Your task to perform on an android device: turn off picture-in-picture Image 0: 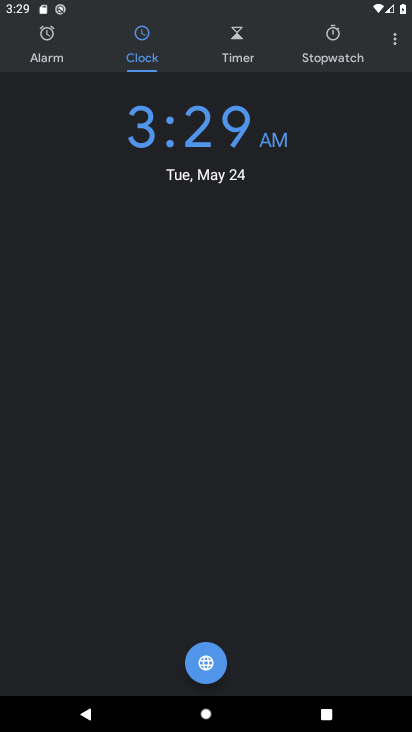
Step 0: press home button
Your task to perform on an android device: turn off picture-in-picture Image 1: 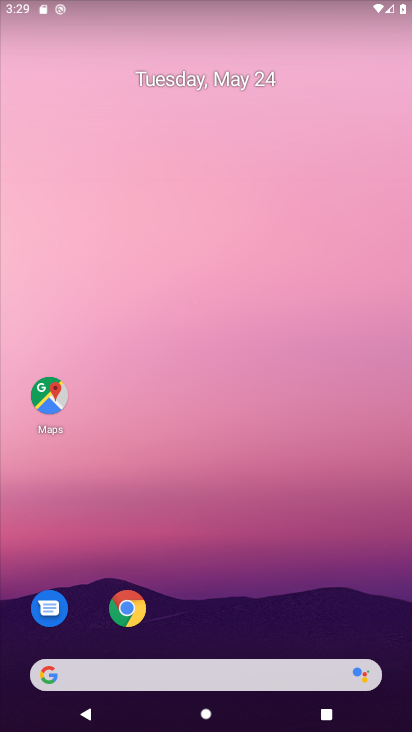
Step 1: drag from (172, 611) to (213, 355)
Your task to perform on an android device: turn off picture-in-picture Image 2: 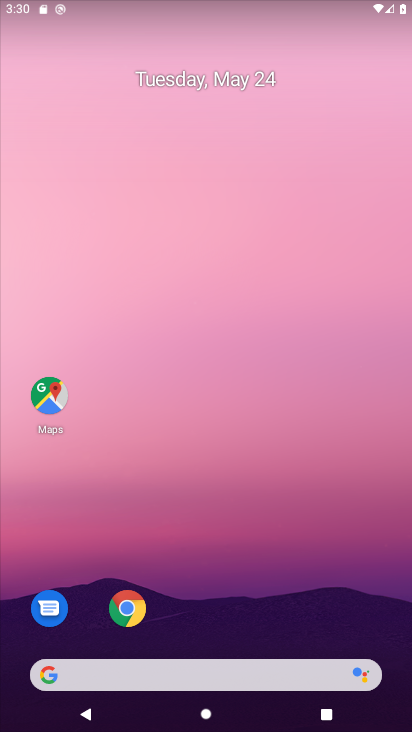
Step 2: drag from (203, 653) to (360, 130)
Your task to perform on an android device: turn off picture-in-picture Image 3: 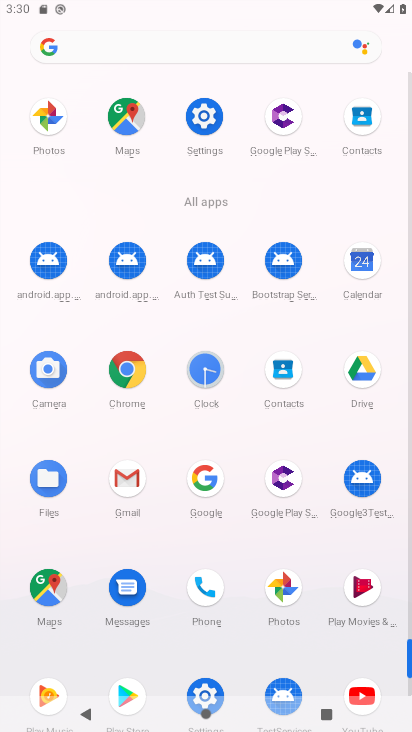
Step 3: click (204, 695)
Your task to perform on an android device: turn off picture-in-picture Image 4: 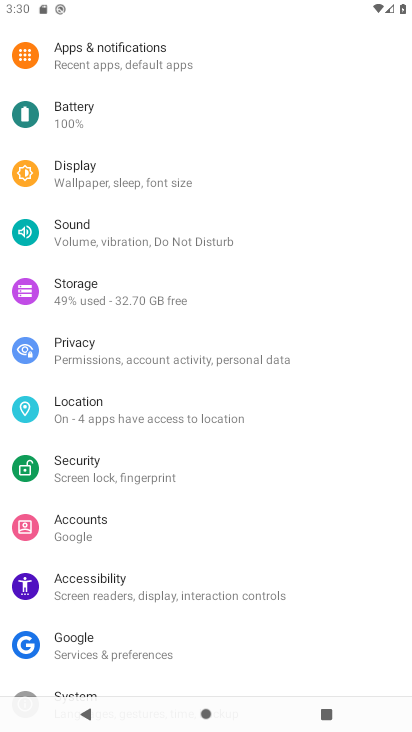
Step 4: click (160, 53)
Your task to perform on an android device: turn off picture-in-picture Image 5: 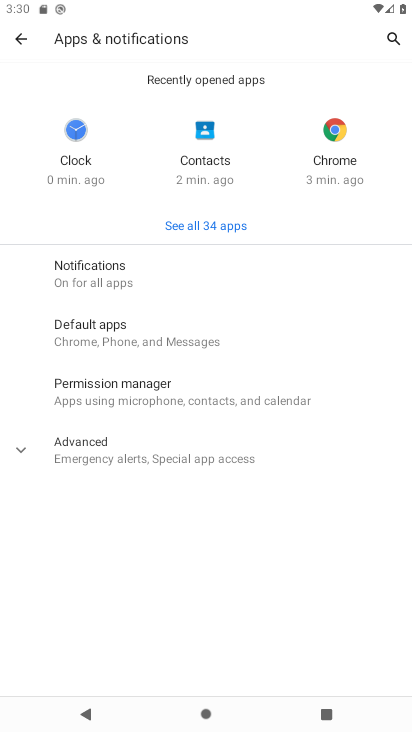
Step 5: click (129, 461)
Your task to perform on an android device: turn off picture-in-picture Image 6: 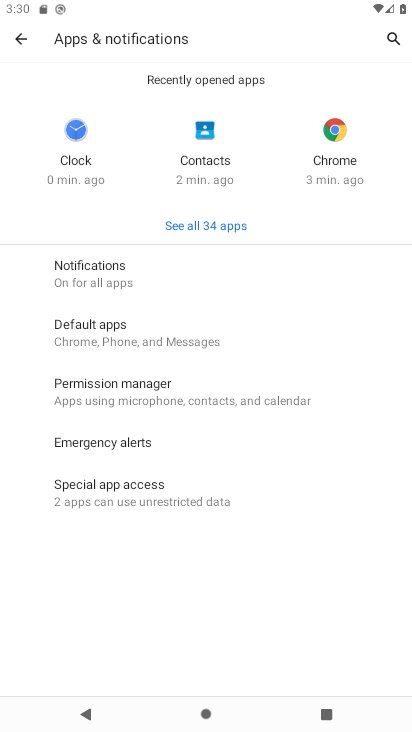
Step 6: click (99, 498)
Your task to perform on an android device: turn off picture-in-picture Image 7: 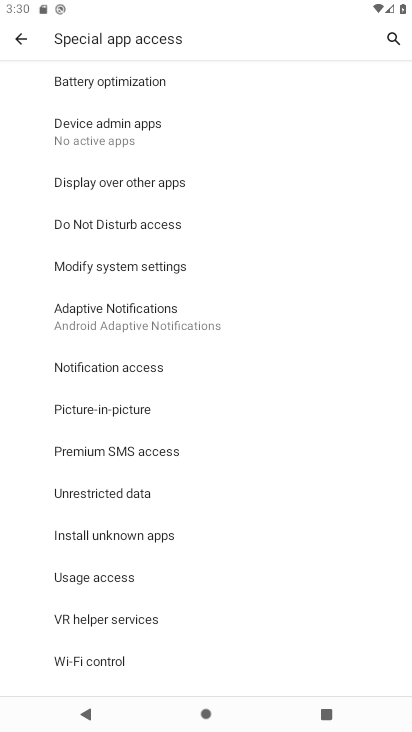
Step 7: click (143, 403)
Your task to perform on an android device: turn off picture-in-picture Image 8: 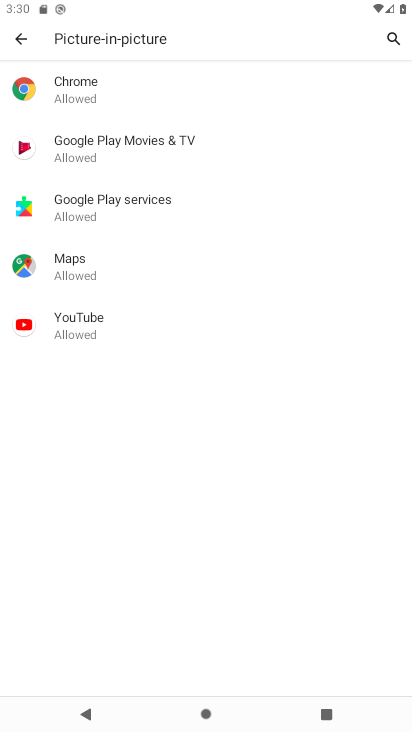
Step 8: click (127, 95)
Your task to perform on an android device: turn off picture-in-picture Image 9: 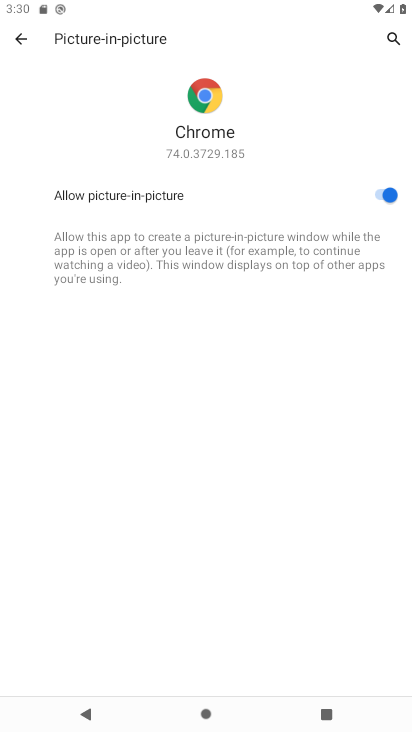
Step 9: click (380, 192)
Your task to perform on an android device: turn off picture-in-picture Image 10: 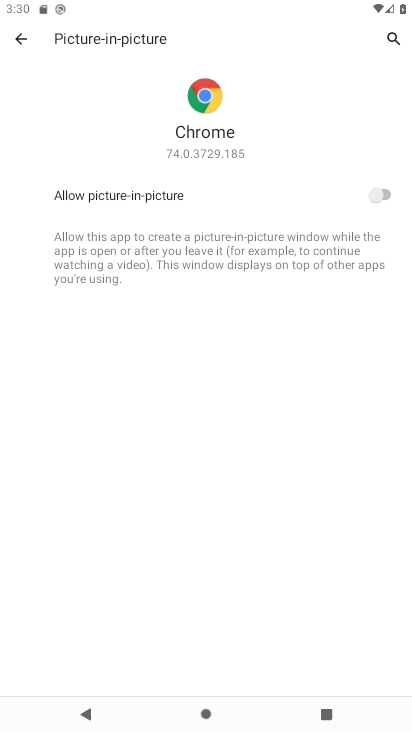
Step 10: click (20, 32)
Your task to perform on an android device: turn off picture-in-picture Image 11: 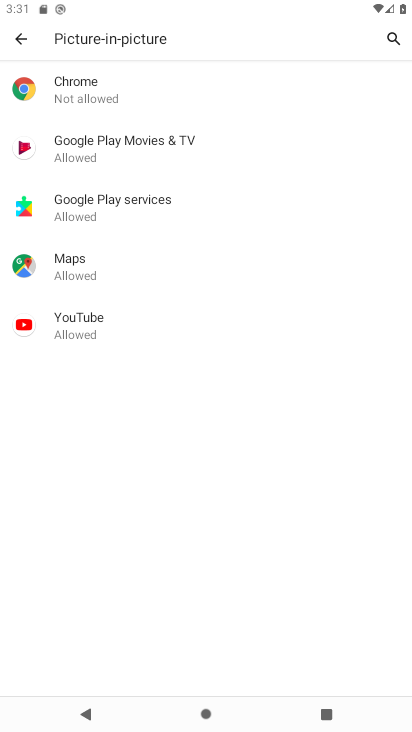
Step 11: click (178, 150)
Your task to perform on an android device: turn off picture-in-picture Image 12: 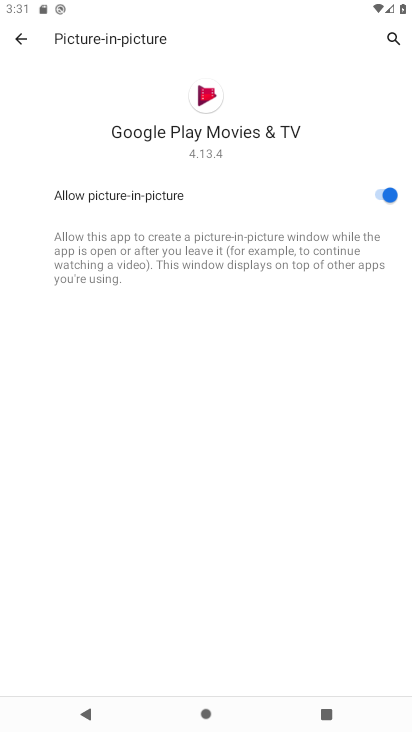
Step 12: click (383, 194)
Your task to perform on an android device: turn off picture-in-picture Image 13: 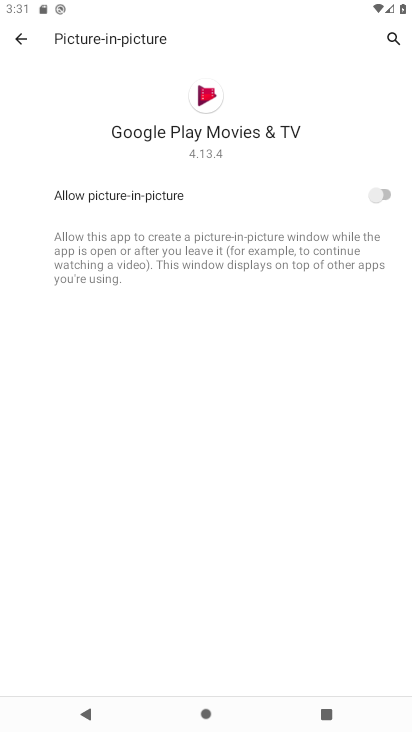
Step 13: click (26, 38)
Your task to perform on an android device: turn off picture-in-picture Image 14: 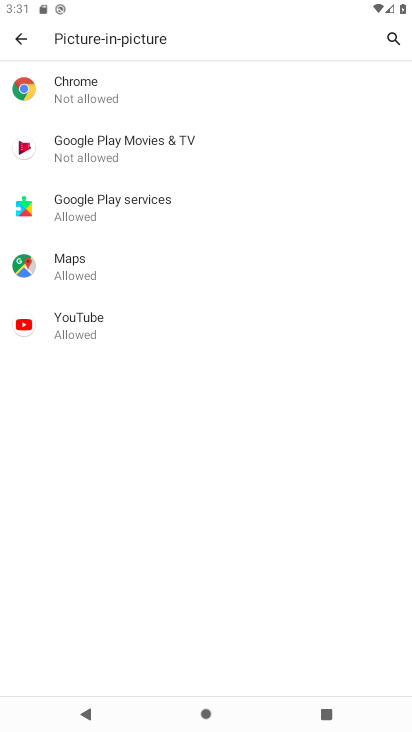
Step 14: click (100, 220)
Your task to perform on an android device: turn off picture-in-picture Image 15: 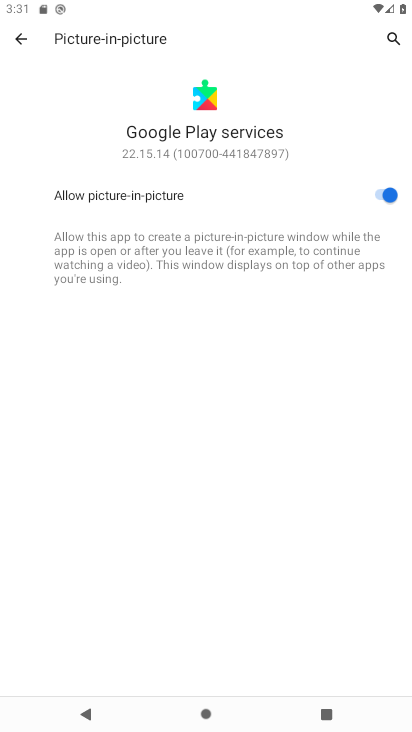
Step 15: click (376, 196)
Your task to perform on an android device: turn off picture-in-picture Image 16: 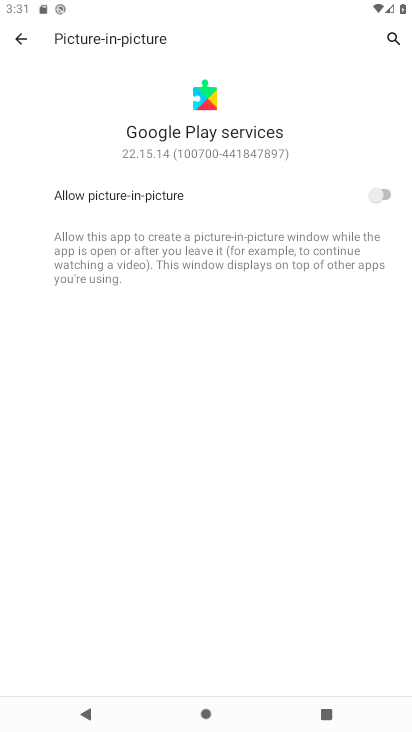
Step 16: click (19, 42)
Your task to perform on an android device: turn off picture-in-picture Image 17: 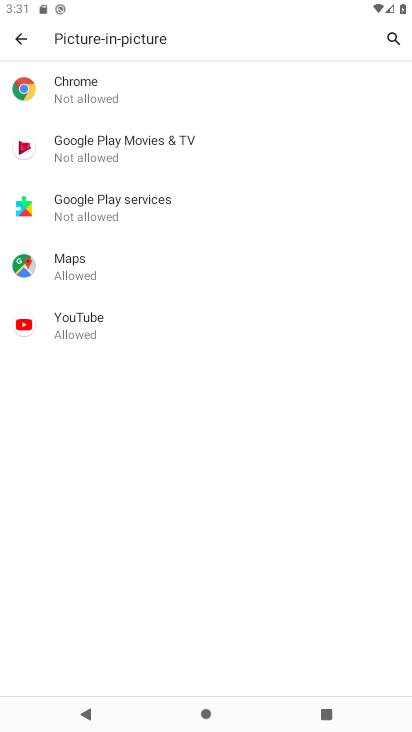
Step 17: click (122, 275)
Your task to perform on an android device: turn off picture-in-picture Image 18: 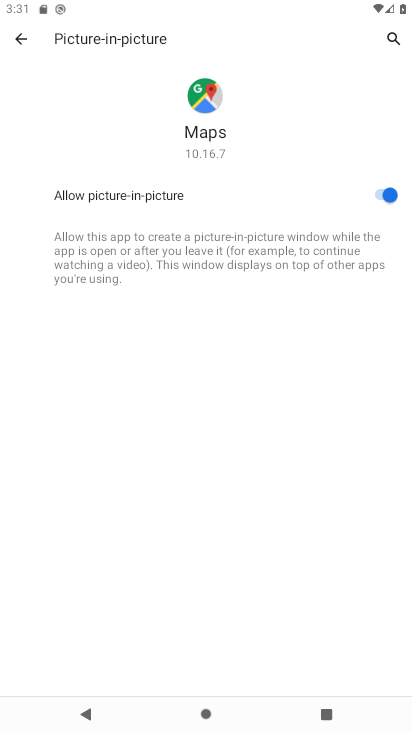
Step 18: click (383, 189)
Your task to perform on an android device: turn off picture-in-picture Image 19: 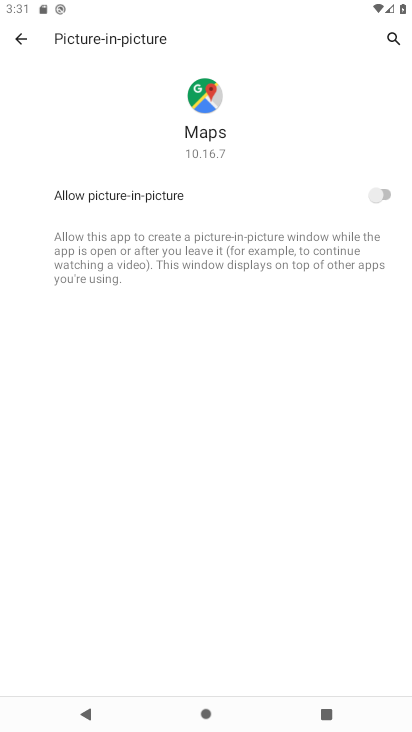
Step 19: click (27, 44)
Your task to perform on an android device: turn off picture-in-picture Image 20: 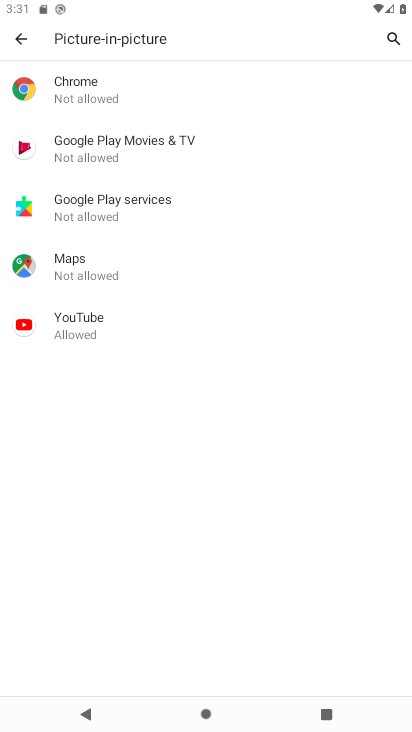
Step 20: click (134, 314)
Your task to perform on an android device: turn off picture-in-picture Image 21: 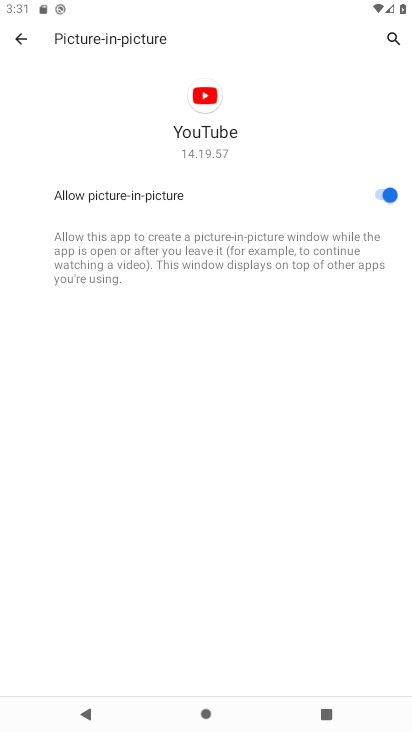
Step 21: click (368, 189)
Your task to perform on an android device: turn off picture-in-picture Image 22: 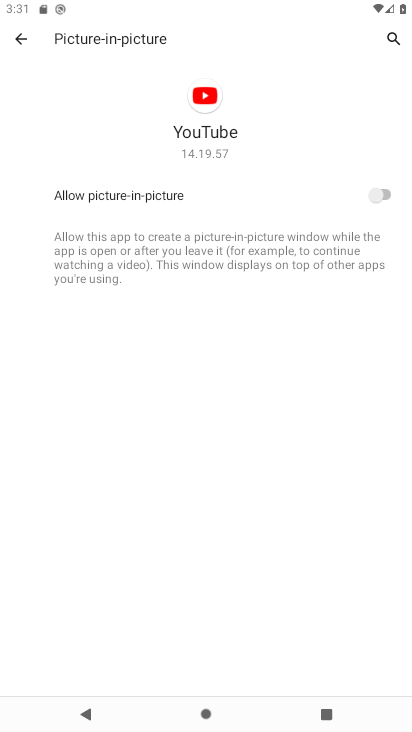
Step 22: task complete